Your task to perform on an android device: delete location history Image 0: 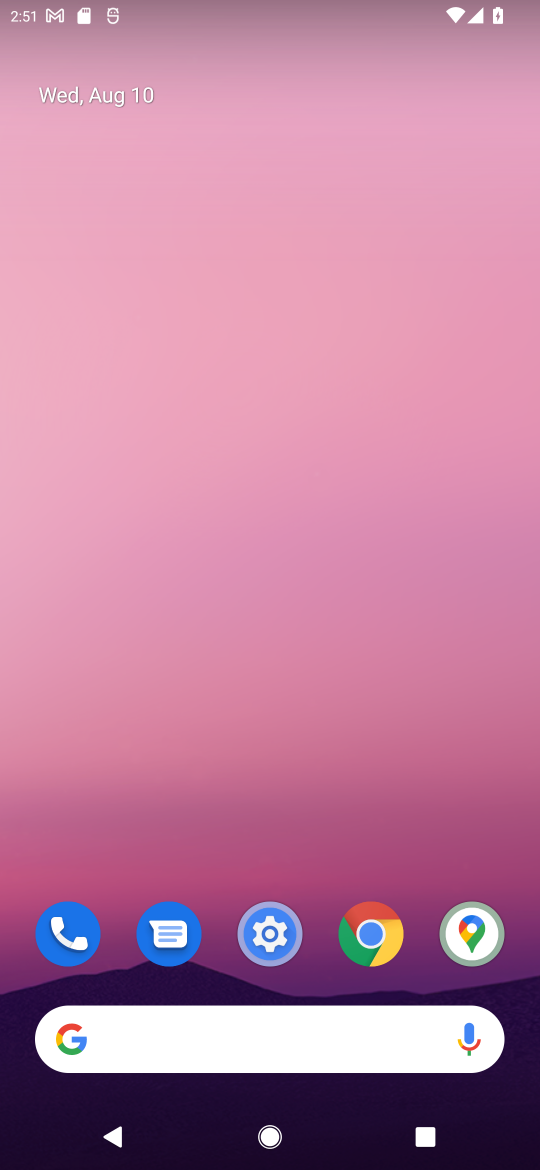
Step 0: drag from (44, 1108) to (316, 652)
Your task to perform on an android device: delete location history Image 1: 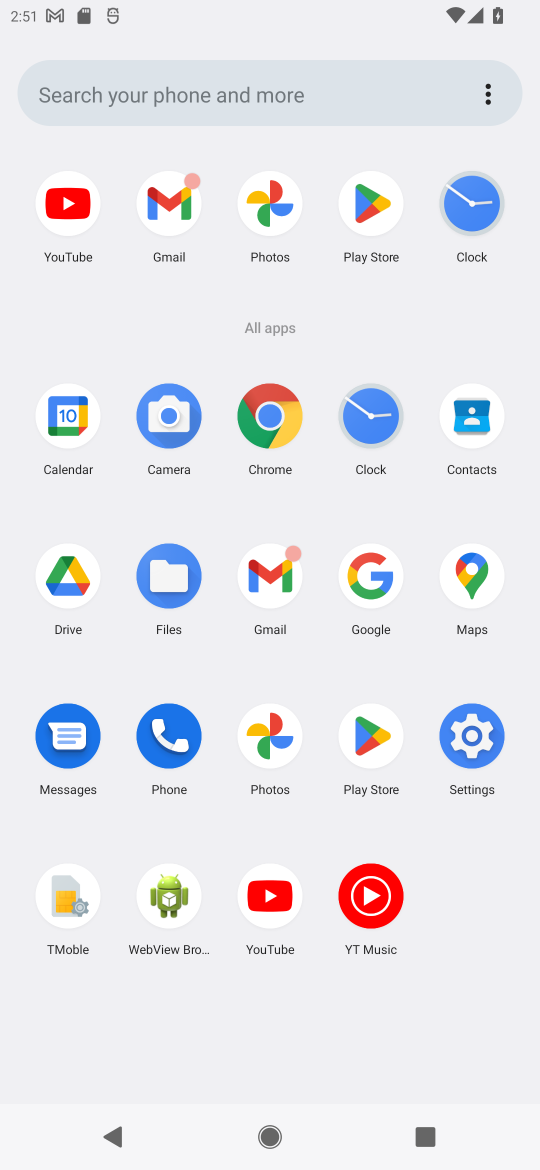
Step 1: click (453, 730)
Your task to perform on an android device: delete location history Image 2: 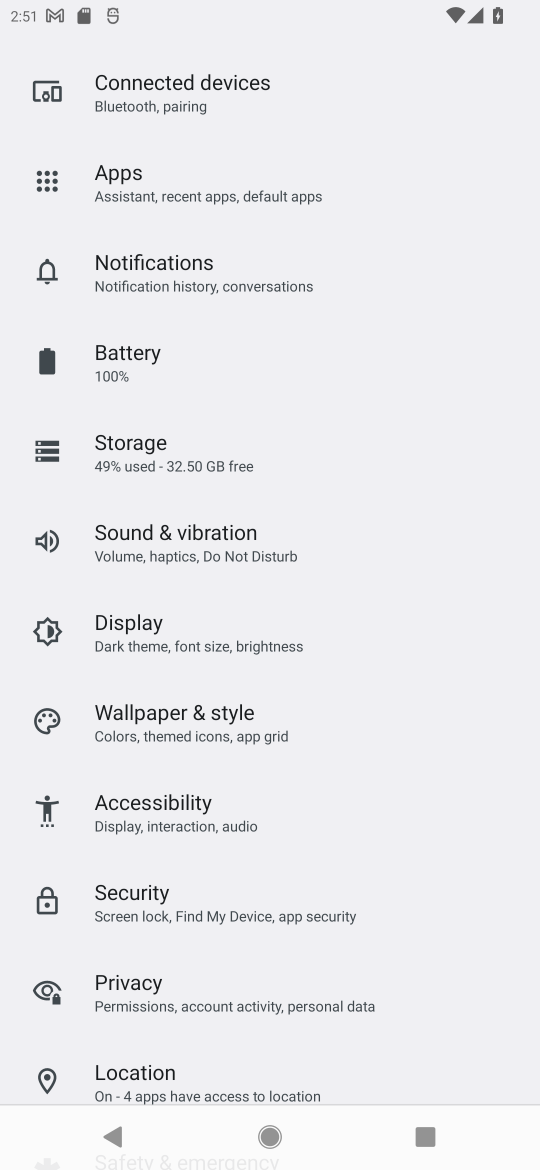
Step 2: drag from (438, 966) to (419, 535)
Your task to perform on an android device: delete location history Image 3: 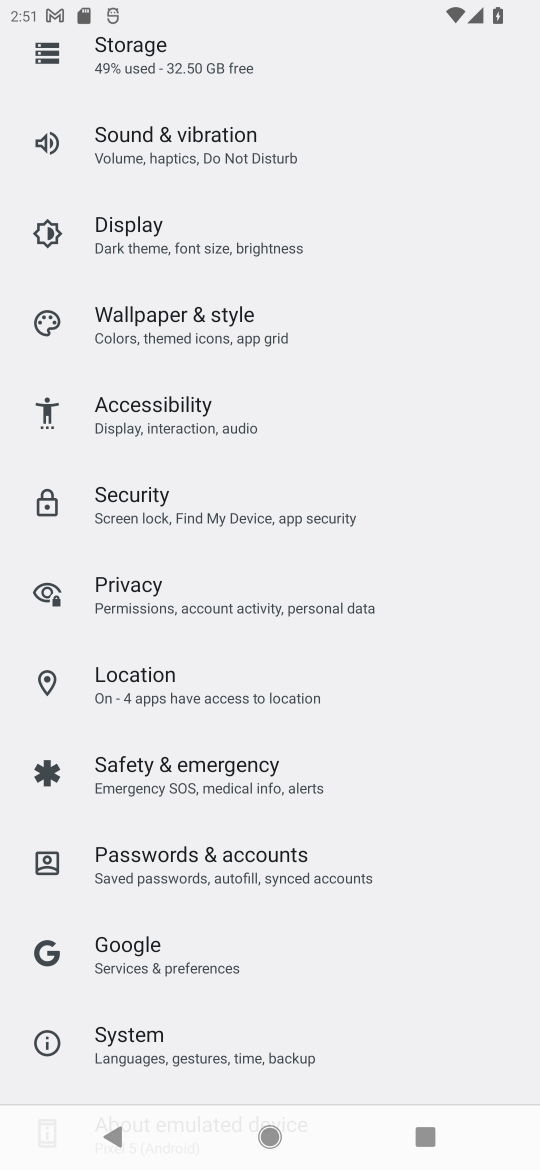
Step 3: click (176, 686)
Your task to perform on an android device: delete location history Image 4: 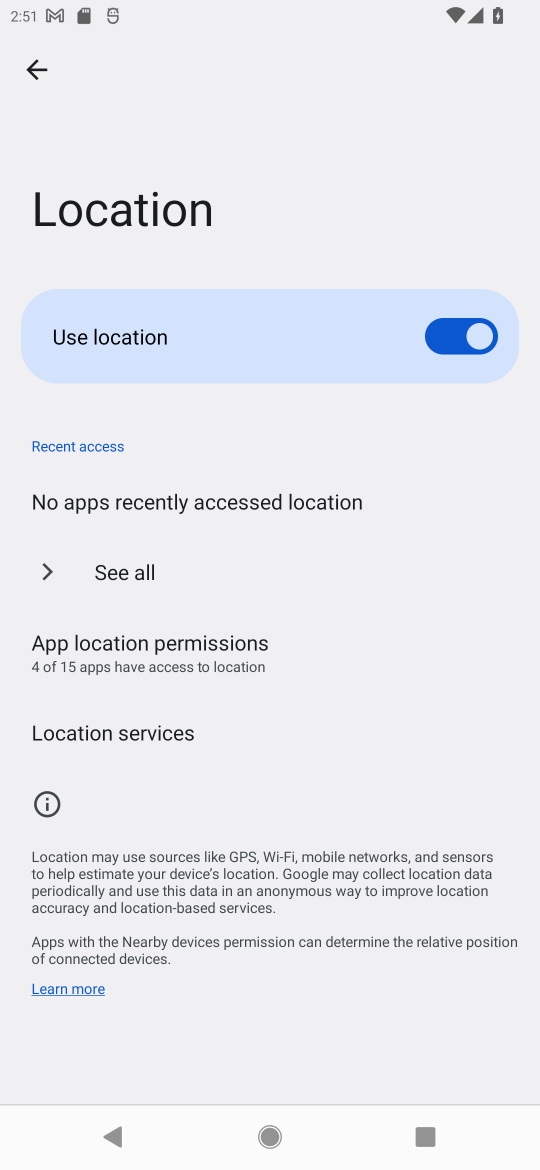
Step 4: click (136, 642)
Your task to perform on an android device: delete location history Image 5: 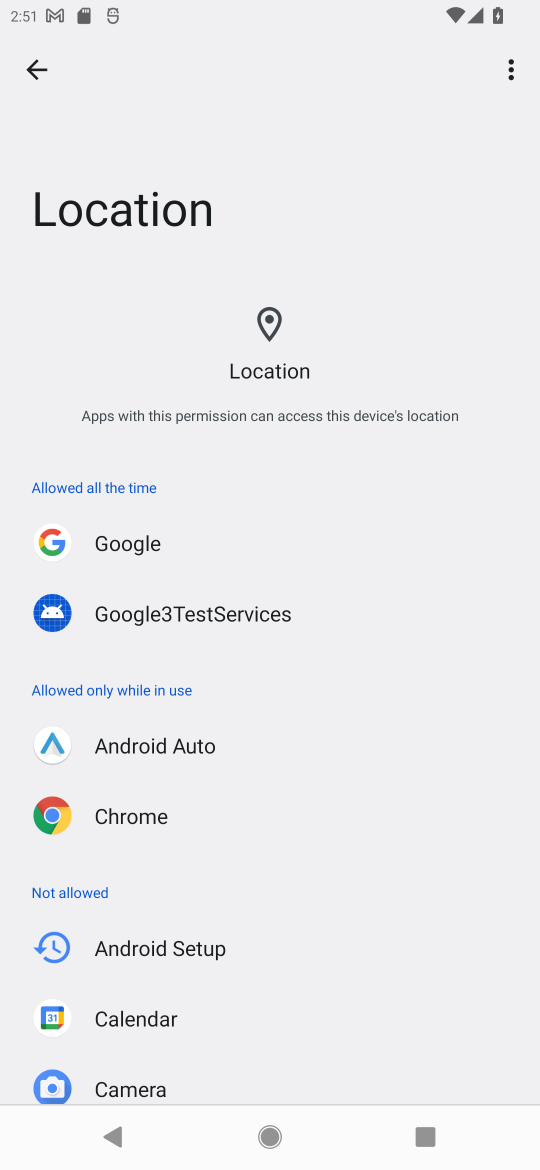
Step 5: task complete